Your task to perform on an android device: toggle priority inbox in the gmail app Image 0: 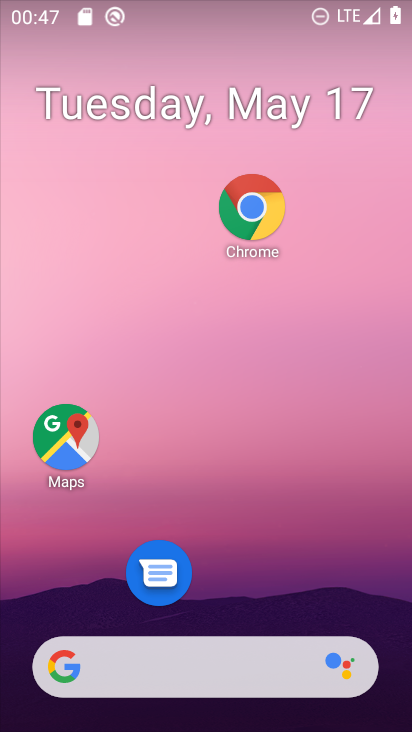
Step 0: drag from (289, 684) to (318, 169)
Your task to perform on an android device: toggle priority inbox in the gmail app Image 1: 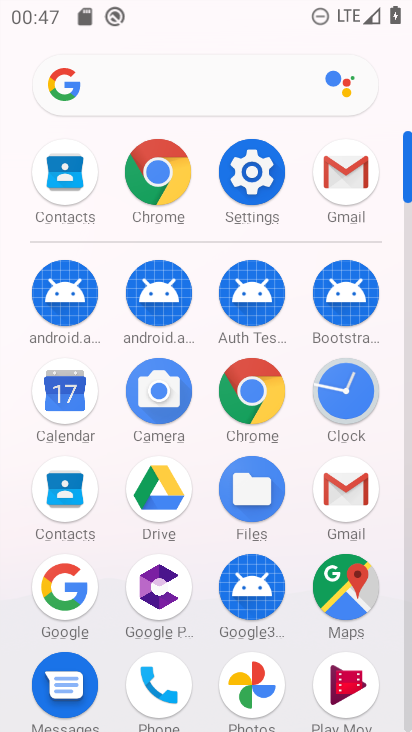
Step 1: click (344, 500)
Your task to perform on an android device: toggle priority inbox in the gmail app Image 2: 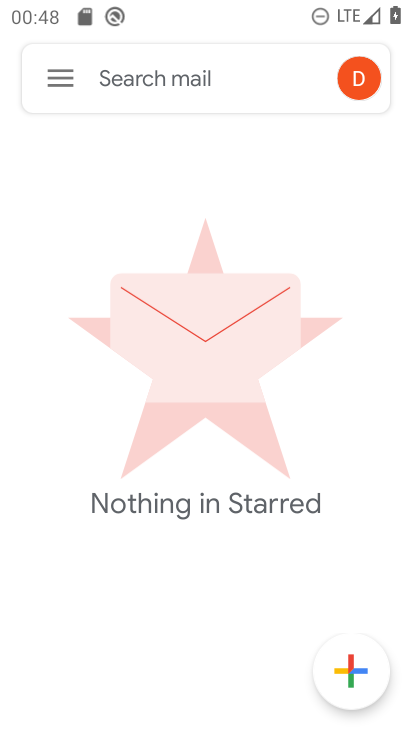
Step 2: click (62, 81)
Your task to perform on an android device: toggle priority inbox in the gmail app Image 3: 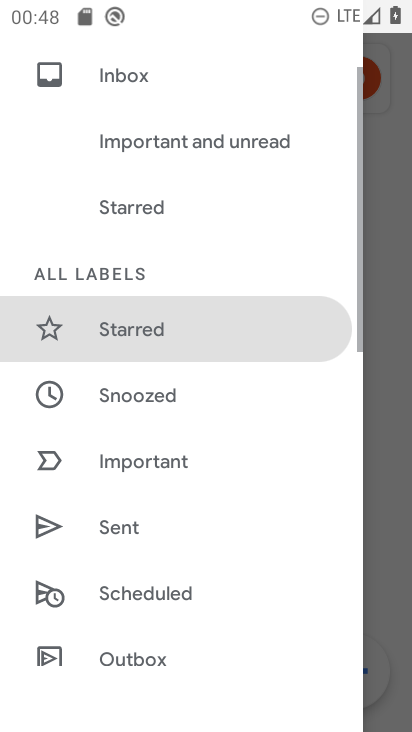
Step 3: drag from (190, 648) to (203, 63)
Your task to perform on an android device: toggle priority inbox in the gmail app Image 4: 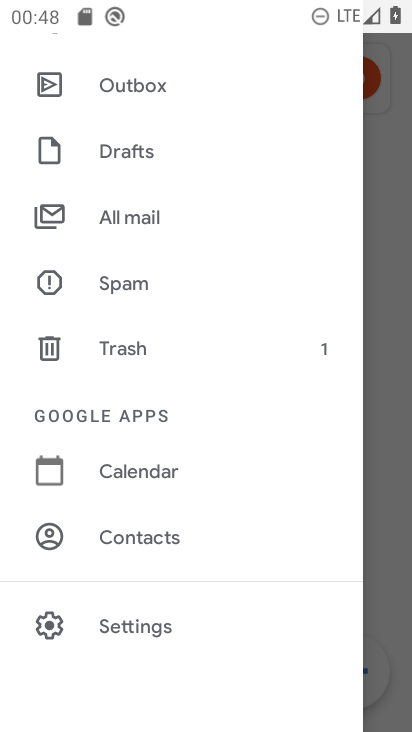
Step 4: click (196, 619)
Your task to perform on an android device: toggle priority inbox in the gmail app Image 5: 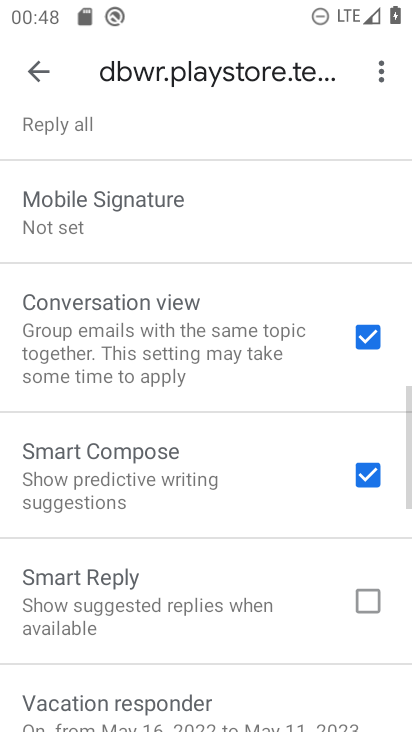
Step 5: drag from (255, 674) to (271, 254)
Your task to perform on an android device: toggle priority inbox in the gmail app Image 6: 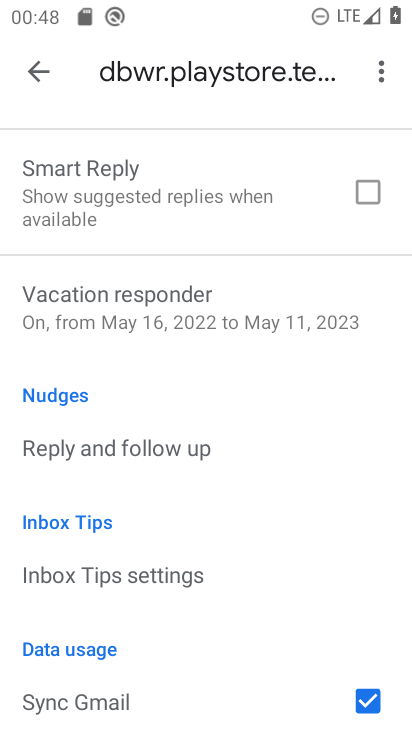
Step 6: drag from (279, 330) to (258, 725)
Your task to perform on an android device: toggle priority inbox in the gmail app Image 7: 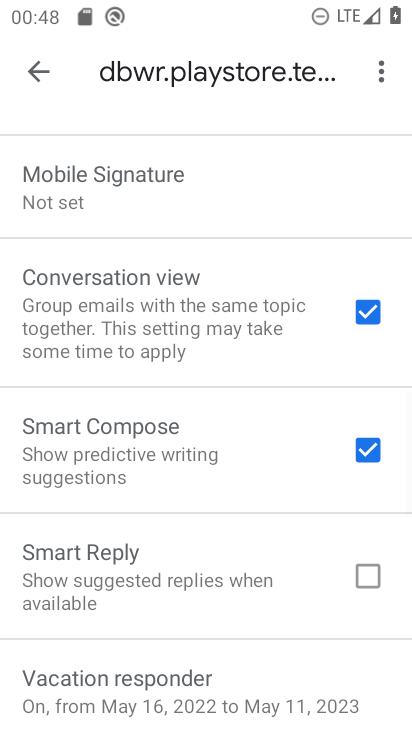
Step 7: drag from (233, 375) to (236, 726)
Your task to perform on an android device: toggle priority inbox in the gmail app Image 8: 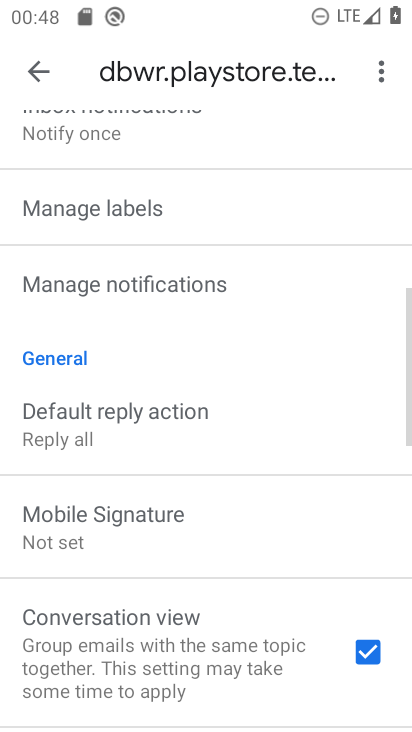
Step 8: drag from (162, 190) to (185, 641)
Your task to perform on an android device: toggle priority inbox in the gmail app Image 9: 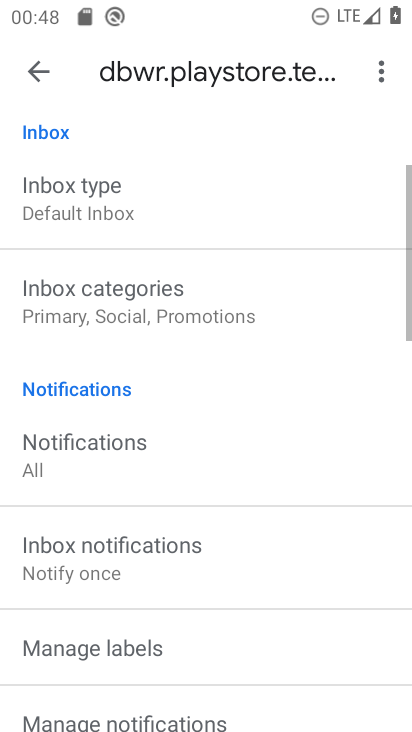
Step 9: drag from (157, 225) to (161, 696)
Your task to perform on an android device: toggle priority inbox in the gmail app Image 10: 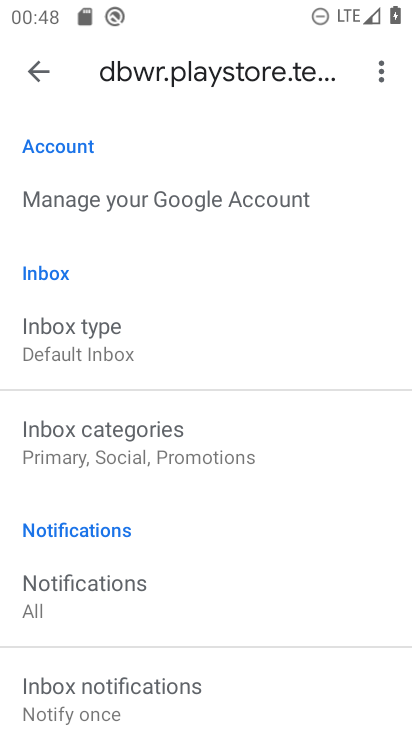
Step 10: click (112, 334)
Your task to perform on an android device: toggle priority inbox in the gmail app Image 11: 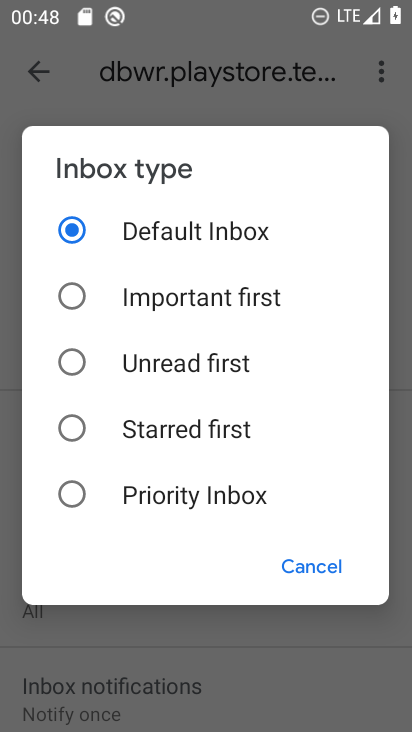
Step 11: click (73, 487)
Your task to perform on an android device: toggle priority inbox in the gmail app Image 12: 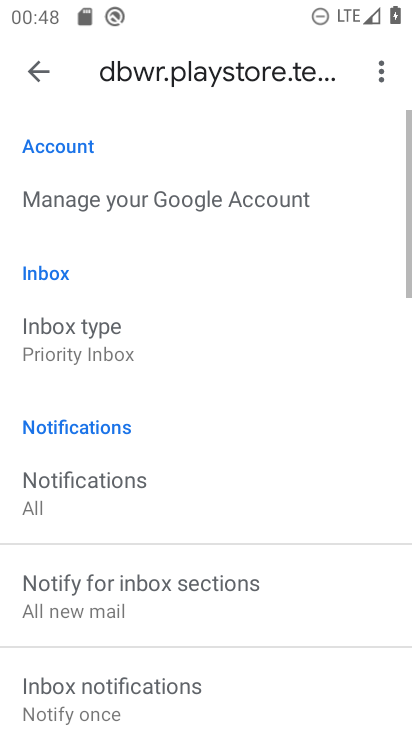
Step 12: task complete